Your task to perform on an android device: Do I have any events this weekend? Image 0: 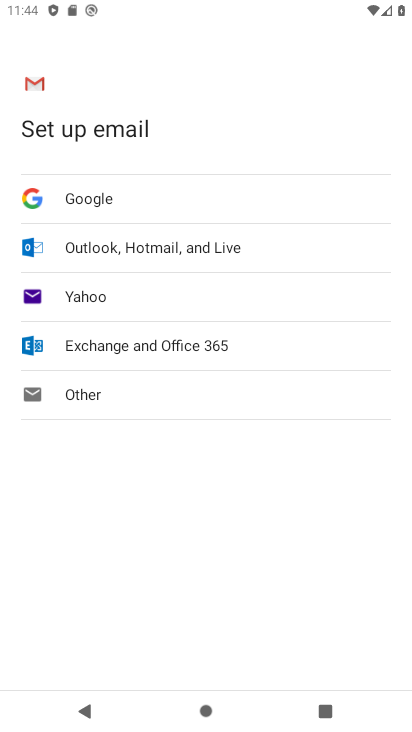
Step 0: press home button
Your task to perform on an android device: Do I have any events this weekend? Image 1: 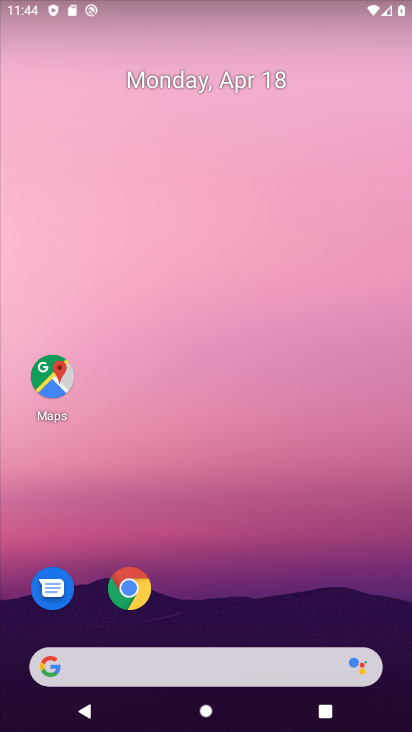
Step 1: drag from (297, 587) to (299, 48)
Your task to perform on an android device: Do I have any events this weekend? Image 2: 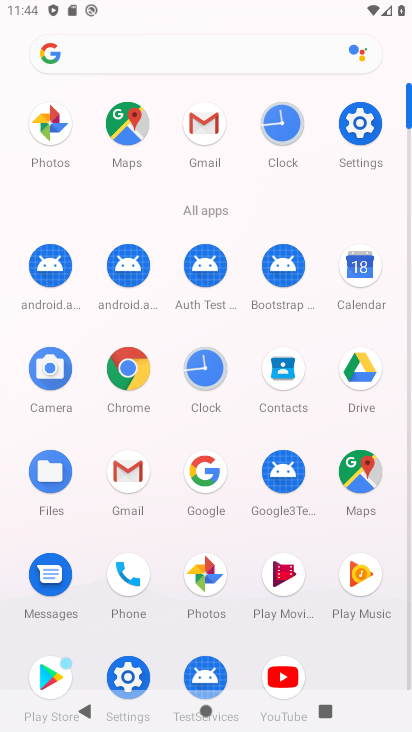
Step 2: click (368, 269)
Your task to perform on an android device: Do I have any events this weekend? Image 3: 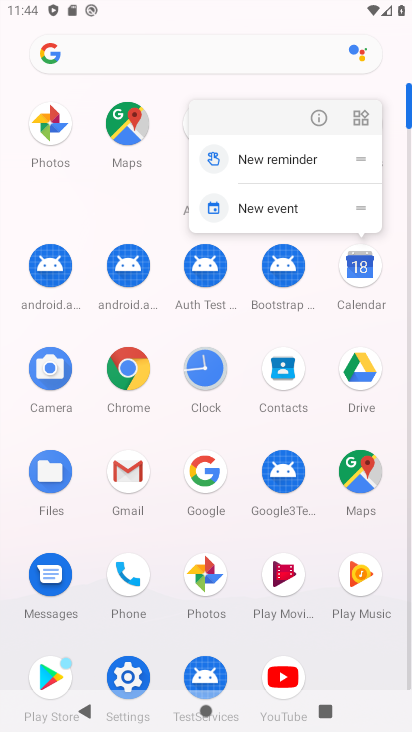
Step 3: click (367, 269)
Your task to perform on an android device: Do I have any events this weekend? Image 4: 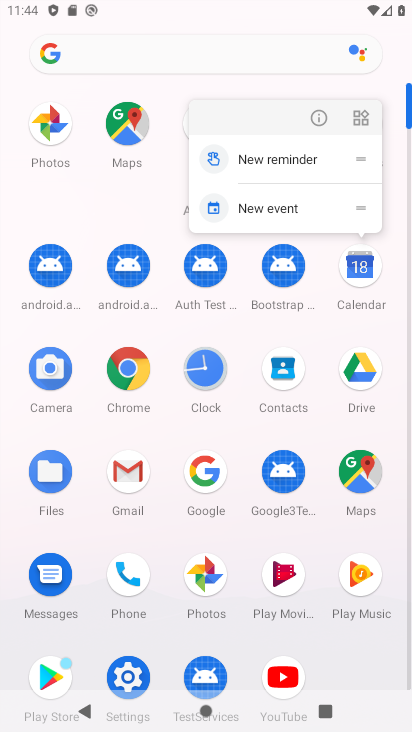
Step 4: click (367, 269)
Your task to perform on an android device: Do I have any events this weekend? Image 5: 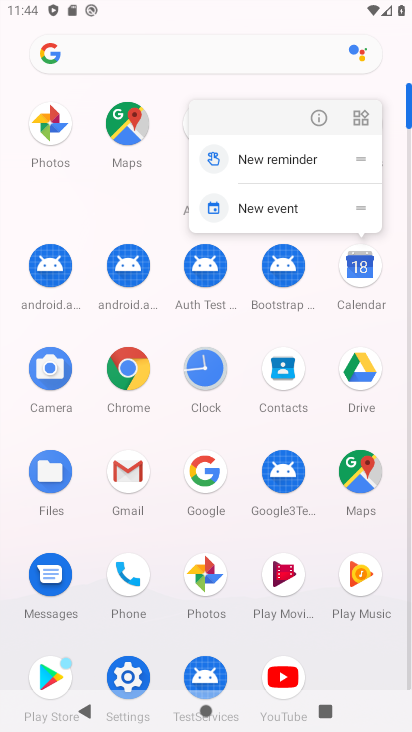
Step 5: click (356, 280)
Your task to perform on an android device: Do I have any events this weekend? Image 6: 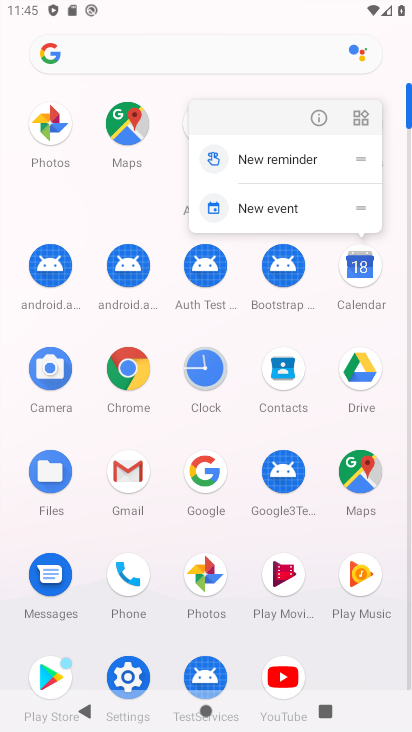
Step 6: click (348, 274)
Your task to perform on an android device: Do I have any events this weekend? Image 7: 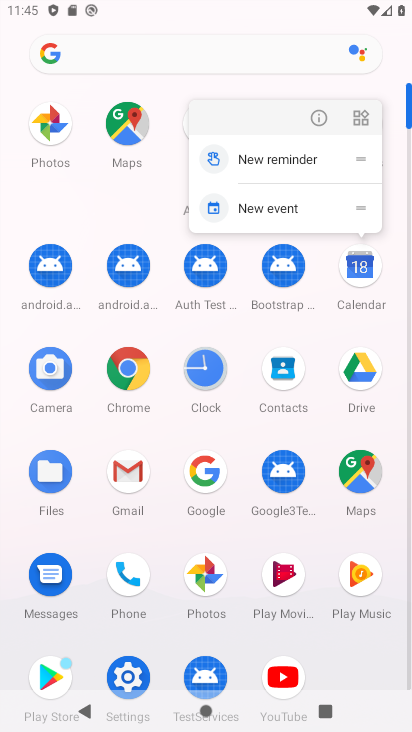
Step 7: click (368, 271)
Your task to perform on an android device: Do I have any events this weekend? Image 8: 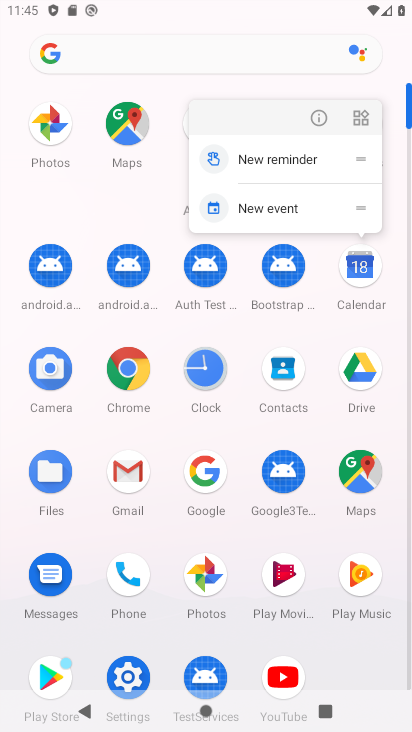
Step 8: click (370, 271)
Your task to perform on an android device: Do I have any events this weekend? Image 9: 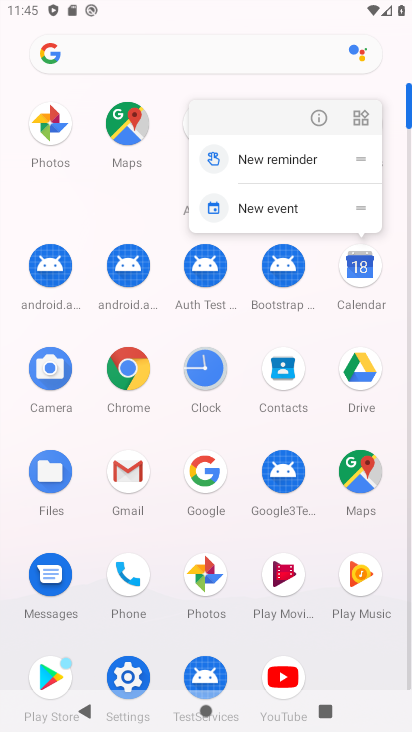
Step 9: click (356, 277)
Your task to perform on an android device: Do I have any events this weekend? Image 10: 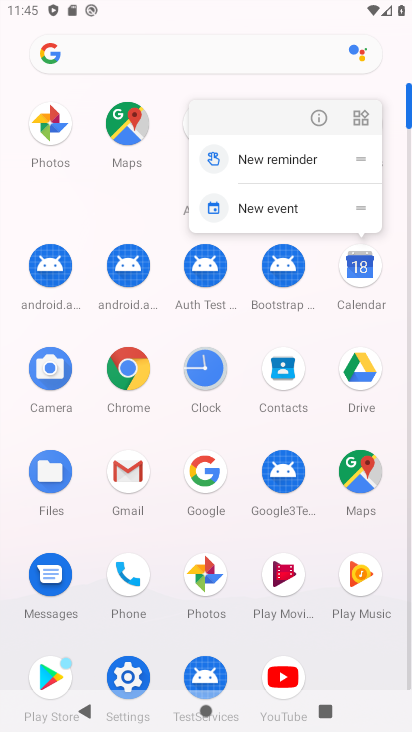
Step 10: click (333, 271)
Your task to perform on an android device: Do I have any events this weekend? Image 11: 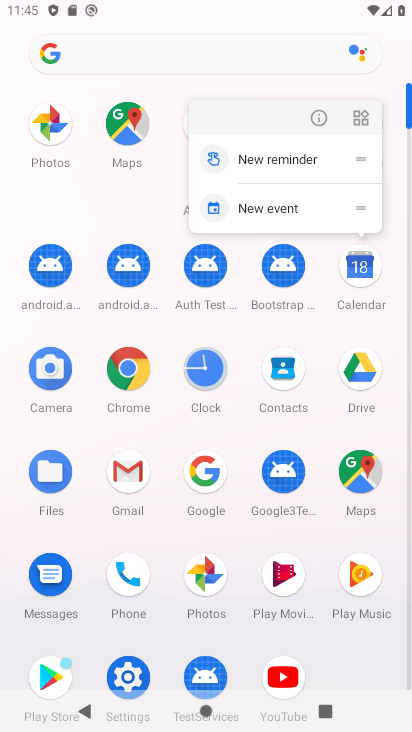
Step 11: click (363, 277)
Your task to perform on an android device: Do I have any events this weekend? Image 12: 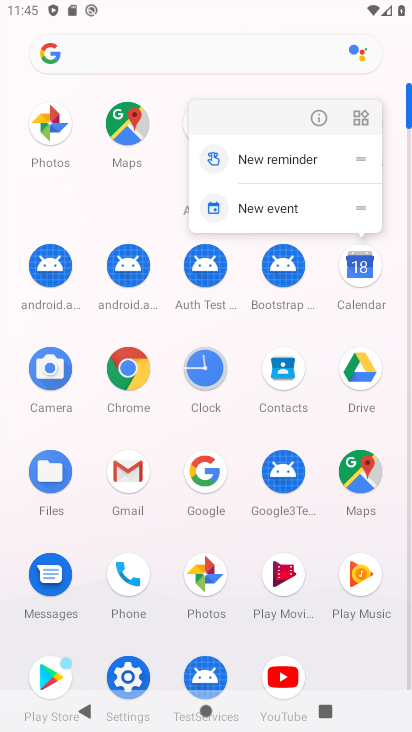
Step 12: click (365, 277)
Your task to perform on an android device: Do I have any events this weekend? Image 13: 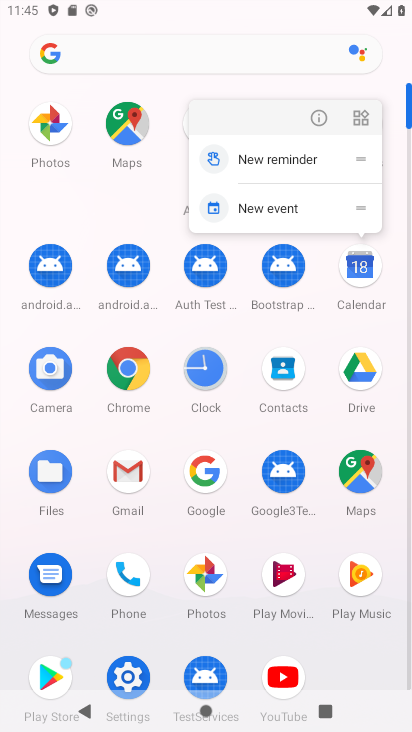
Step 13: click (364, 278)
Your task to perform on an android device: Do I have any events this weekend? Image 14: 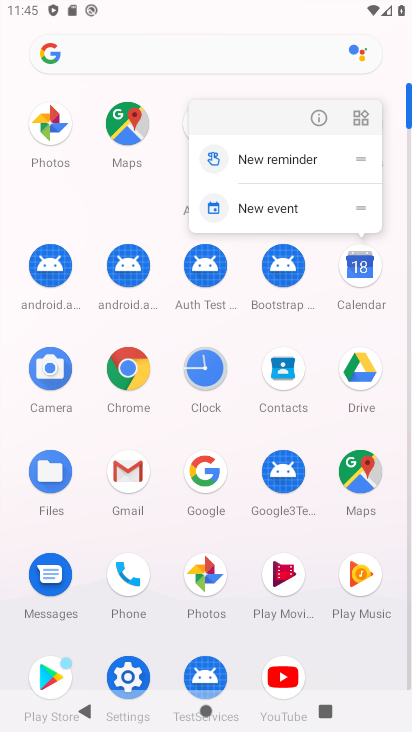
Step 14: click (364, 278)
Your task to perform on an android device: Do I have any events this weekend? Image 15: 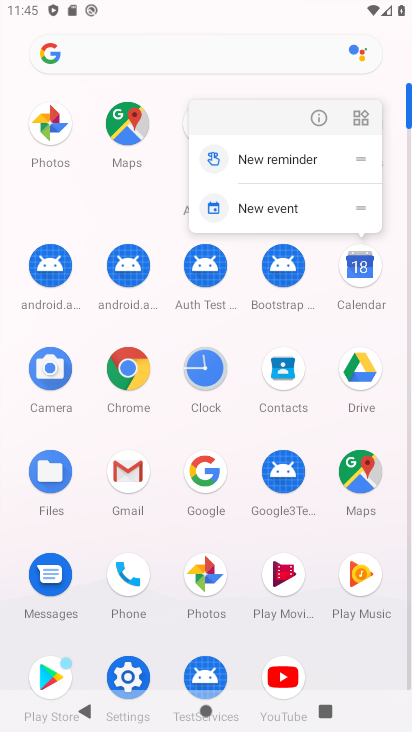
Step 15: click (364, 278)
Your task to perform on an android device: Do I have any events this weekend? Image 16: 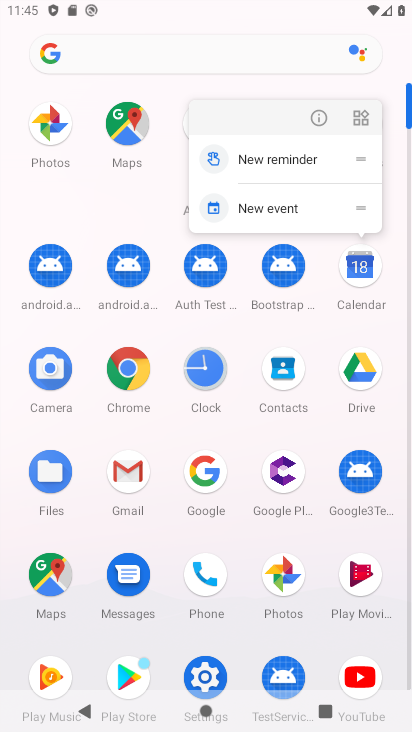
Step 16: click (345, 286)
Your task to perform on an android device: Do I have any events this weekend? Image 17: 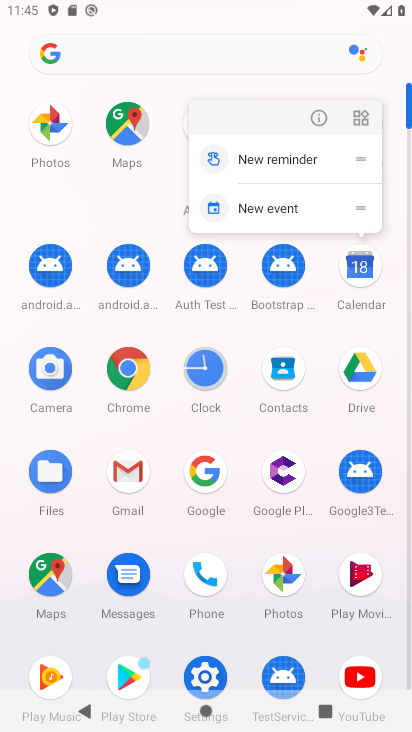
Step 17: click (368, 271)
Your task to perform on an android device: Do I have any events this weekend? Image 18: 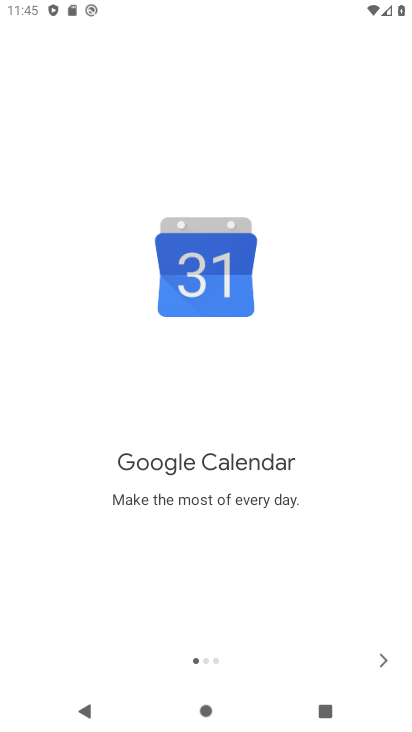
Step 18: click (384, 666)
Your task to perform on an android device: Do I have any events this weekend? Image 19: 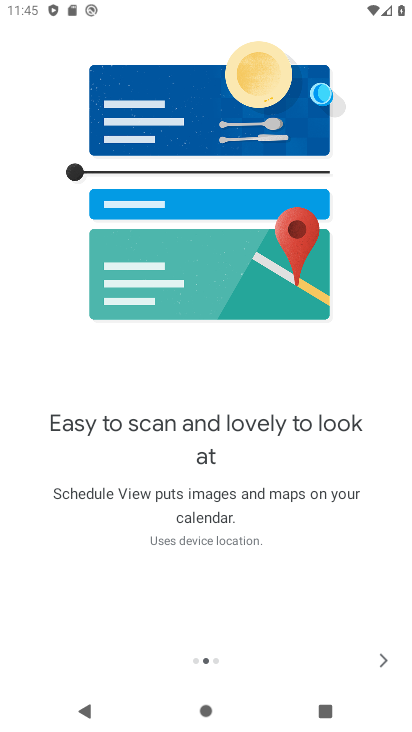
Step 19: click (384, 663)
Your task to perform on an android device: Do I have any events this weekend? Image 20: 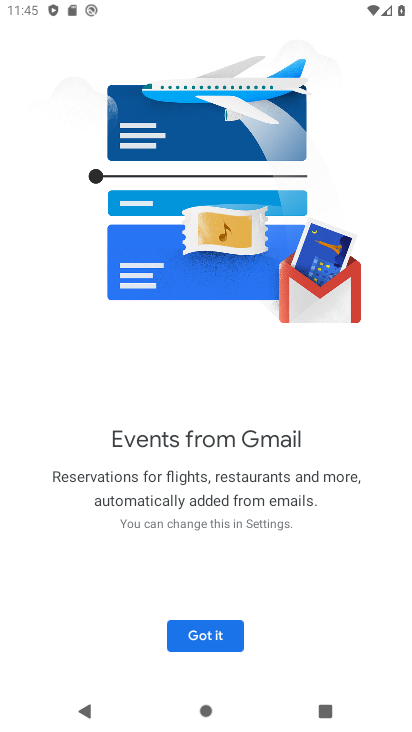
Step 20: click (197, 645)
Your task to perform on an android device: Do I have any events this weekend? Image 21: 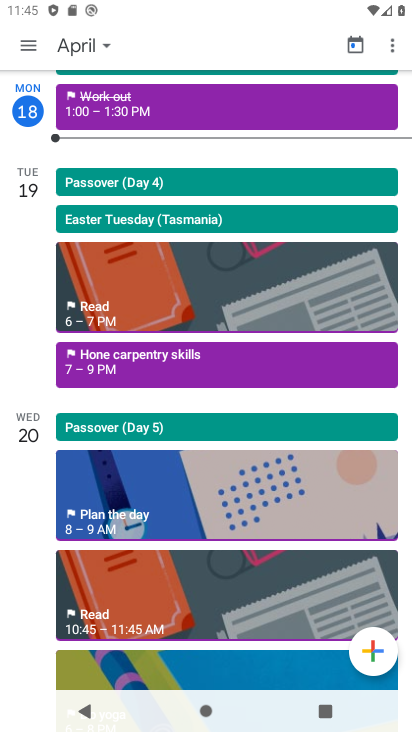
Step 21: click (105, 44)
Your task to perform on an android device: Do I have any events this weekend? Image 22: 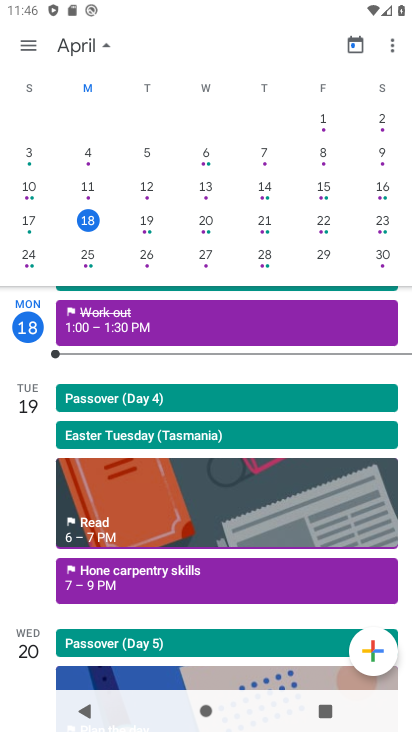
Step 22: click (383, 219)
Your task to perform on an android device: Do I have any events this weekend? Image 23: 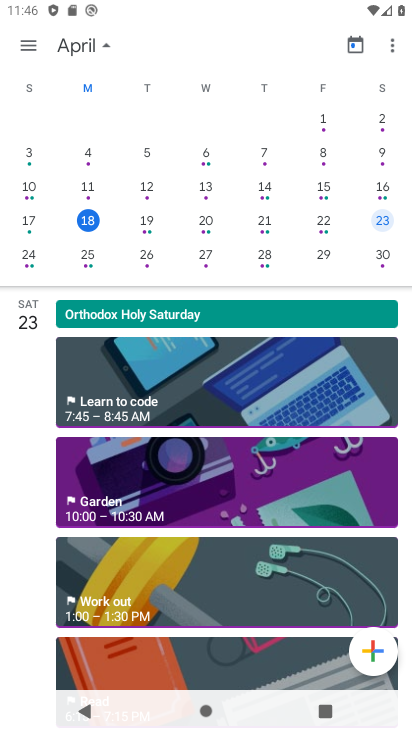
Step 23: click (195, 382)
Your task to perform on an android device: Do I have any events this weekend? Image 24: 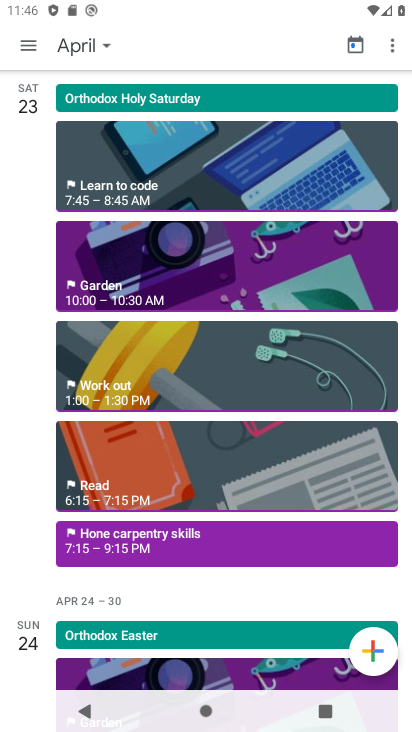
Step 24: task complete